Your task to perform on an android device: Check the weather Image 0: 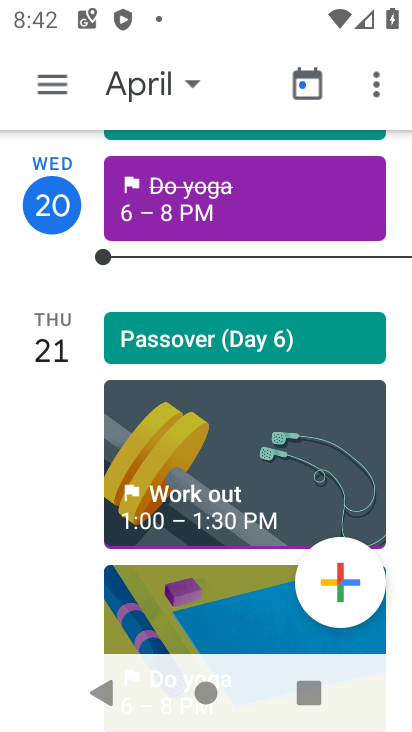
Step 0: drag from (234, 671) to (188, 283)
Your task to perform on an android device: Check the weather Image 1: 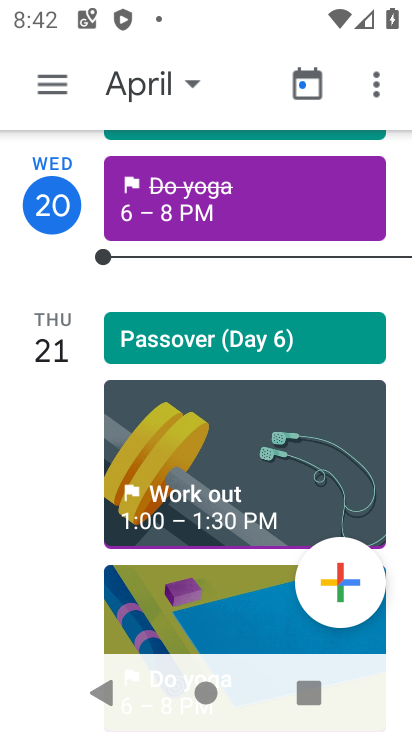
Step 1: press back button
Your task to perform on an android device: Check the weather Image 2: 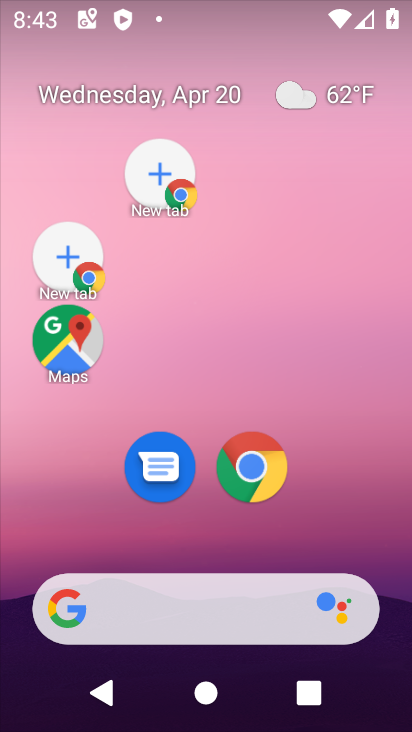
Step 2: drag from (346, 562) to (249, 19)
Your task to perform on an android device: Check the weather Image 3: 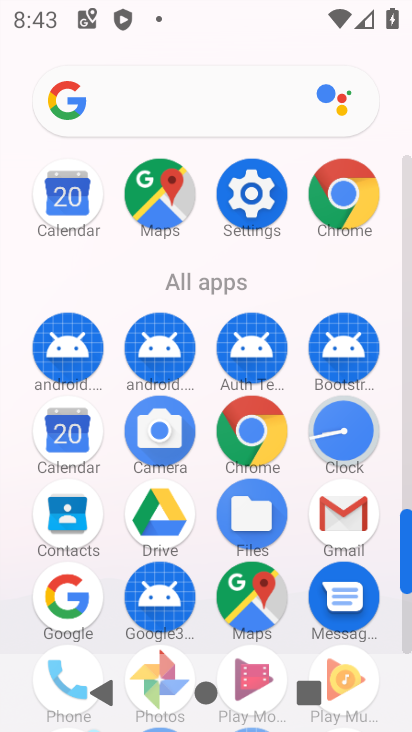
Step 3: press home button
Your task to perform on an android device: Check the weather Image 4: 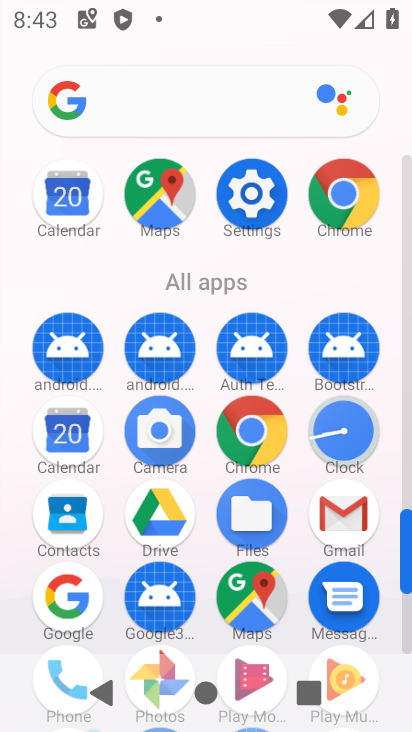
Step 4: press home button
Your task to perform on an android device: Check the weather Image 5: 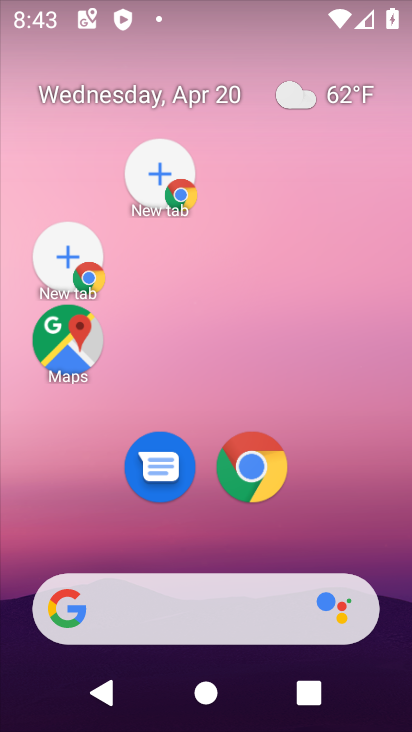
Step 5: press home button
Your task to perform on an android device: Check the weather Image 6: 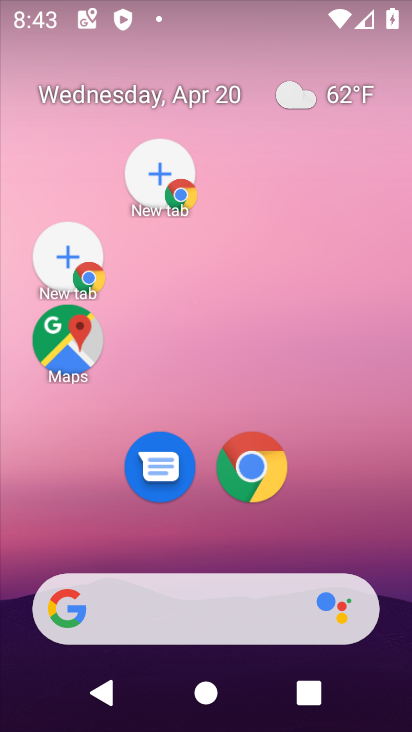
Step 6: press home button
Your task to perform on an android device: Check the weather Image 7: 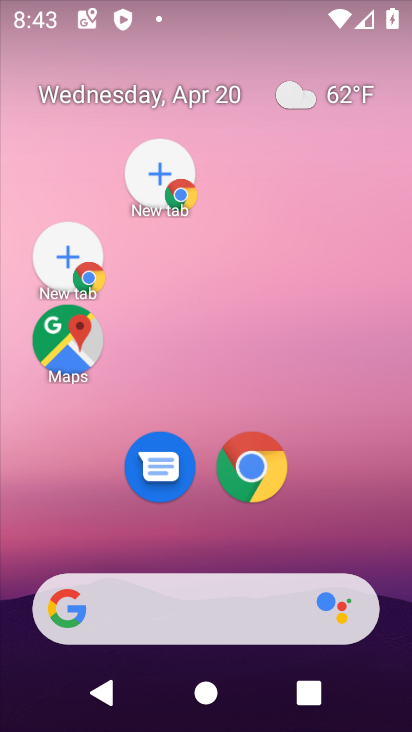
Step 7: press home button
Your task to perform on an android device: Check the weather Image 8: 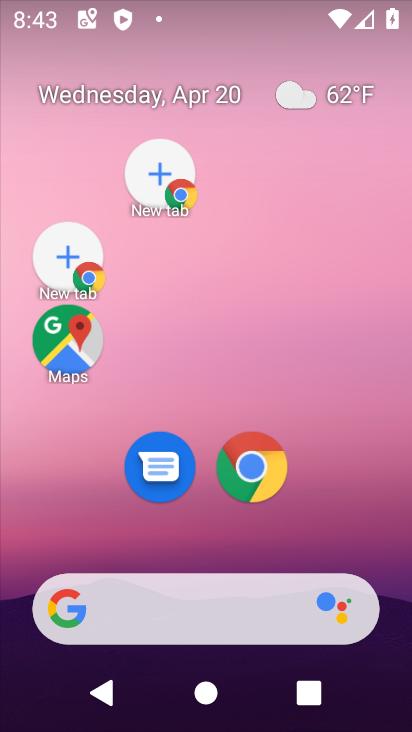
Step 8: drag from (30, 189) to (379, 352)
Your task to perform on an android device: Check the weather Image 9: 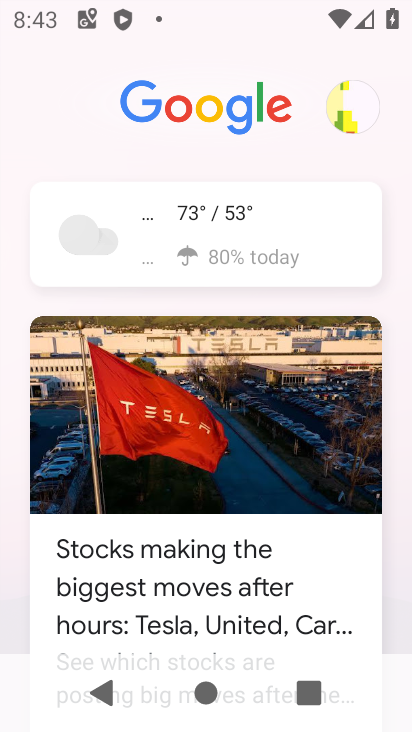
Step 9: click (234, 224)
Your task to perform on an android device: Check the weather Image 10: 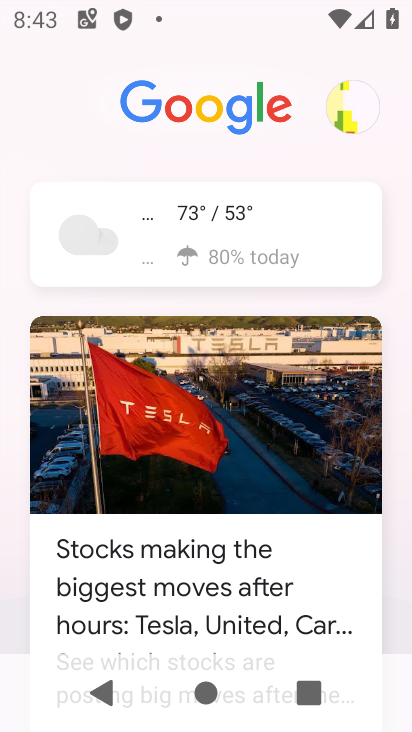
Step 10: click (239, 237)
Your task to perform on an android device: Check the weather Image 11: 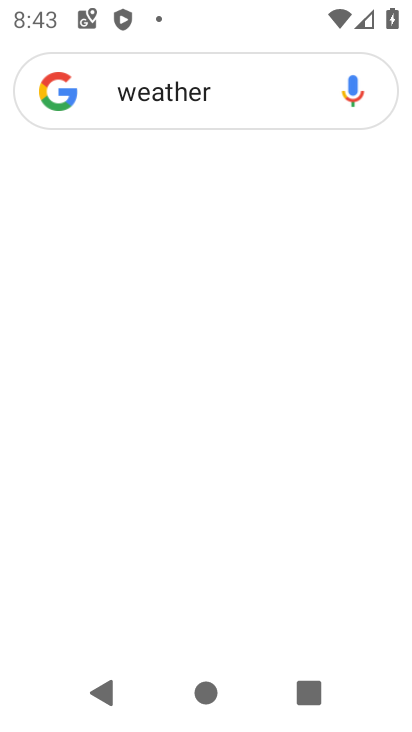
Step 11: click (234, 230)
Your task to perform on an android device: Check the weather Image 12: 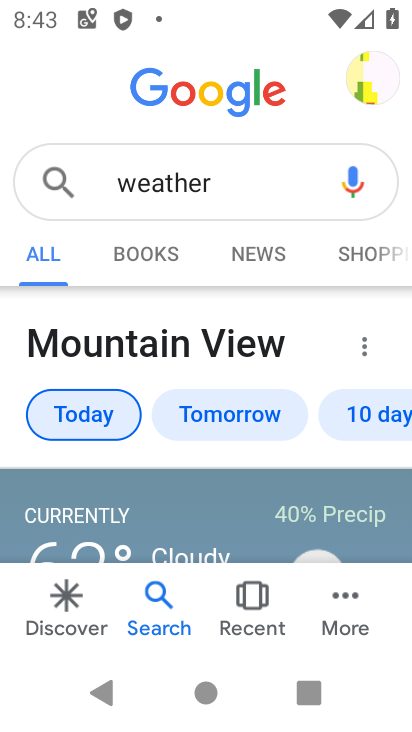
Step 12: task complete